Your task to perform on an android device: toggle javascript in the chrome app Image 0: 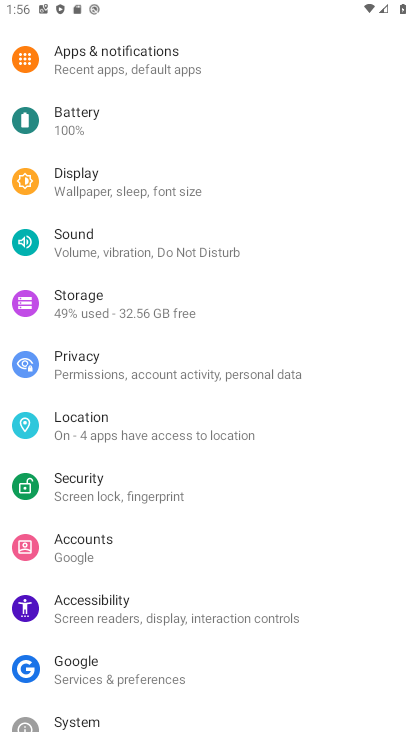
Step 0: press home button
Your task to perform on an android device: toggle javascript in the chrome app Image 1: 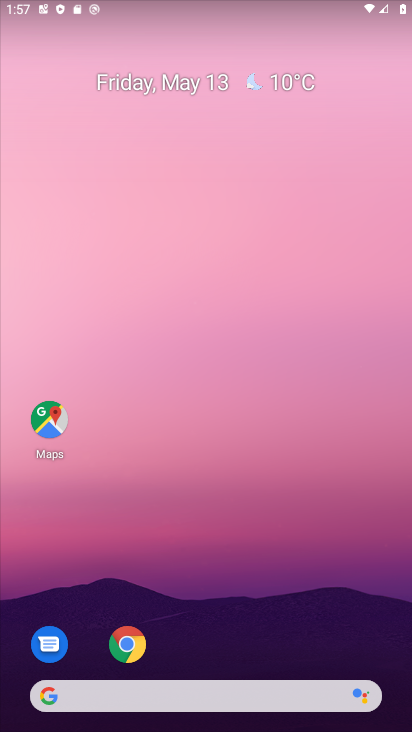
Step 1: click (124, 643)
Your task to perform on an android device: toggle javascript in the chrome app Image 2: 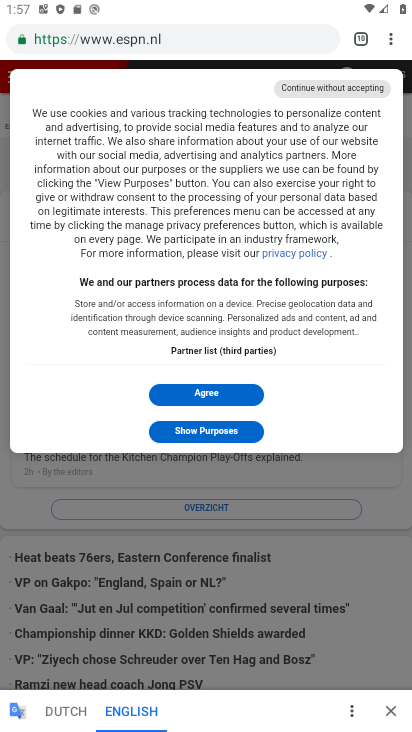
Step 2: click (393, 46)
Your task to perform on an android device: toggle javascript in the chrome app Image 3: 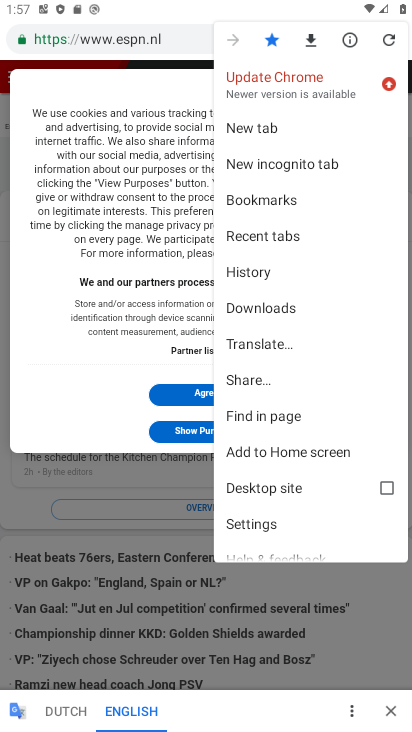
Step 3: click (249, 522)
Your task to perform on an android device: toggle javascript in the chrome app Image 4: 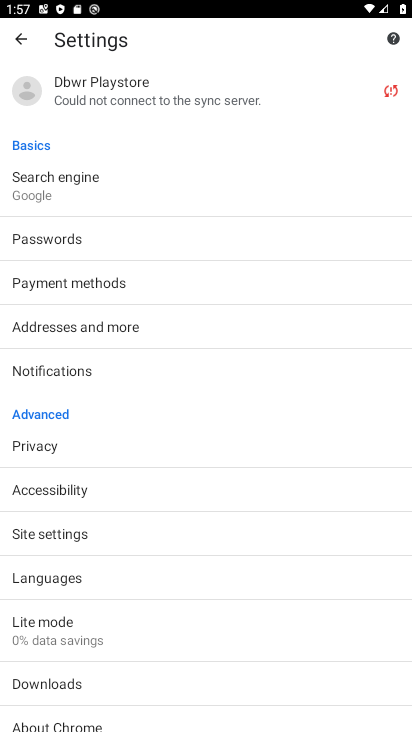
Step 4: click (62, 532)
Your task to perform on an android device: toggle javascript in the chrome app Image 5: 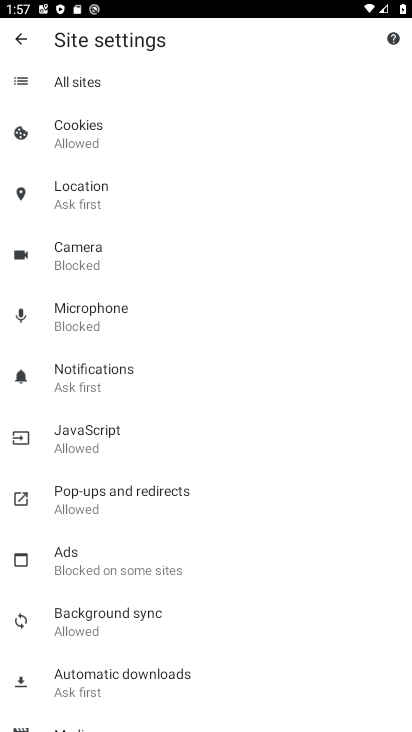
Step 5: drag from (150, 656) to (168, 349)
Your task to perform on an android device: toggle javascript in the chrome app Image 6: 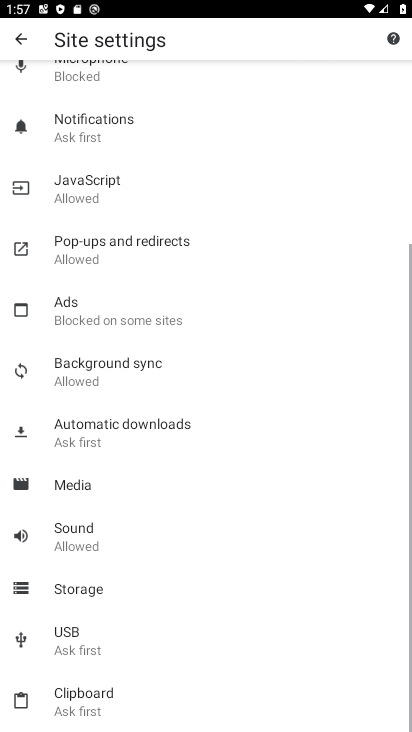
Step 6: drag from (146, 615) to (169, 294)
Your task to perform on an android device: toggle javascript in the chrome app Image 7: 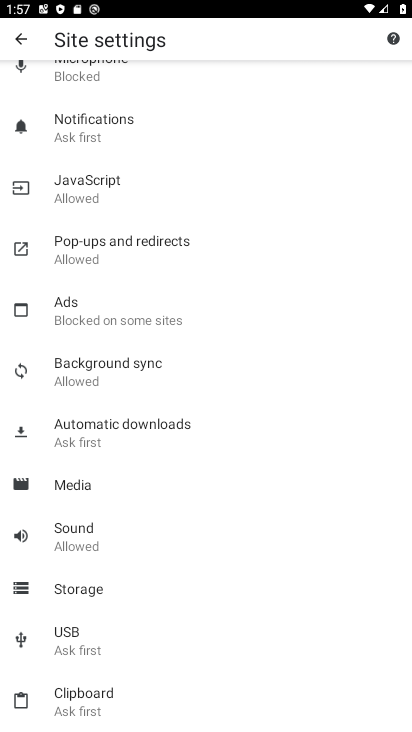
Step 7: click (76, 183)
Your task to perform on an android device: toggle javascript in the chrome app Image 8: 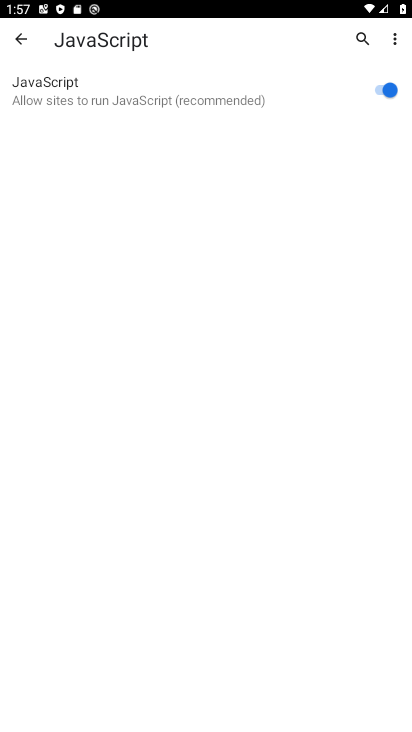
Step 8: click (380, 88)
Your task to perform on an android device: toggle javascript in the chrome app Image 9: 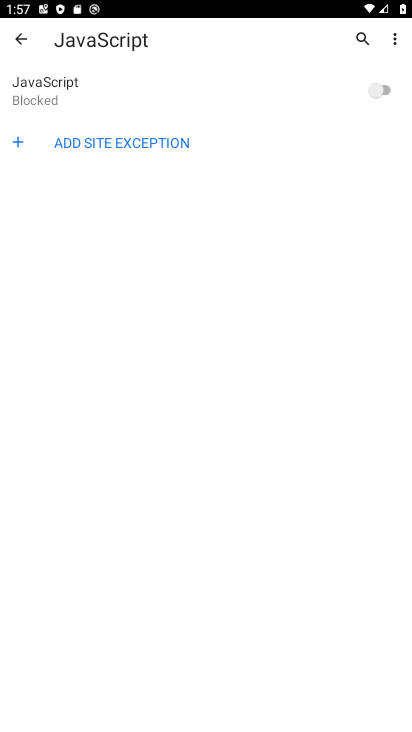
Step 9: task complete